Your task to perform on an android device: turn off translation in the chrome app Image 0: 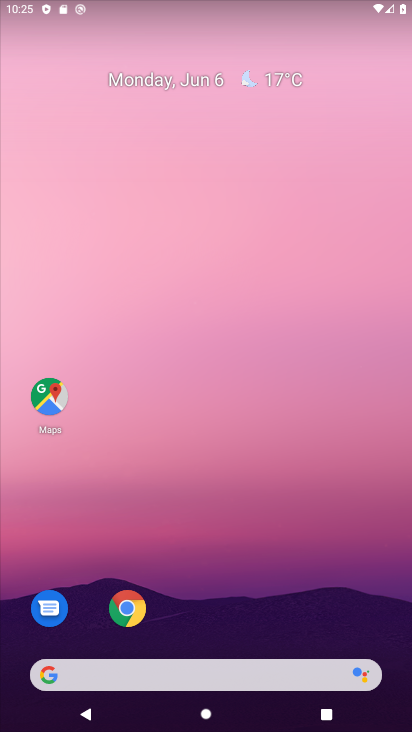
Step 0: click (152, 601)
Your task to perform on an android device: turn off translation in the chrome app Image 1: 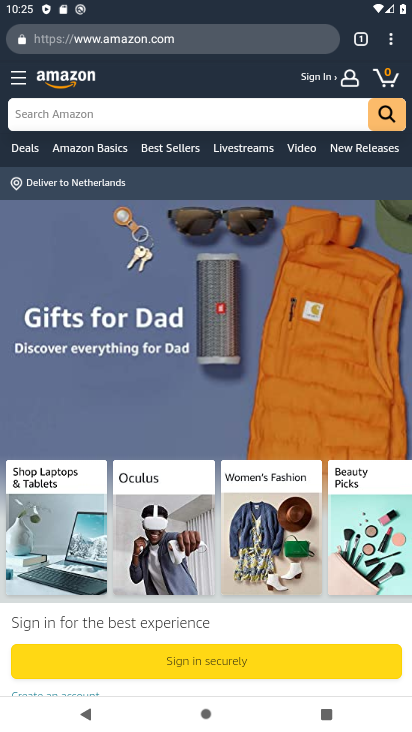
Step 1: click (392, 43)
Your task to perform on an android device: turn off translation in the chrome app Image 2: 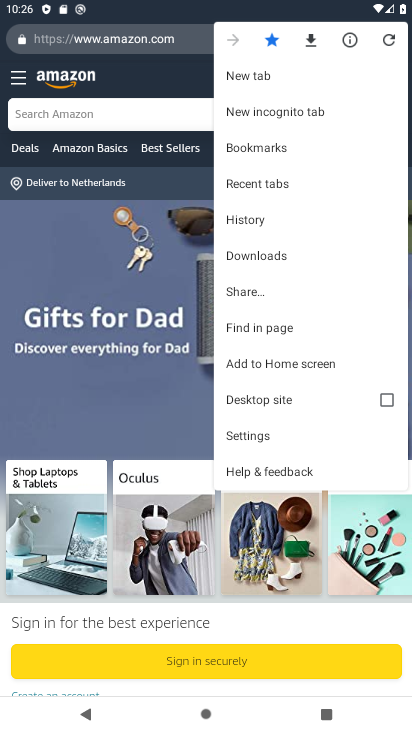
Step 2: task complete